Your task to perform on an android device: choose inbox layout in the gmail app Image 0: 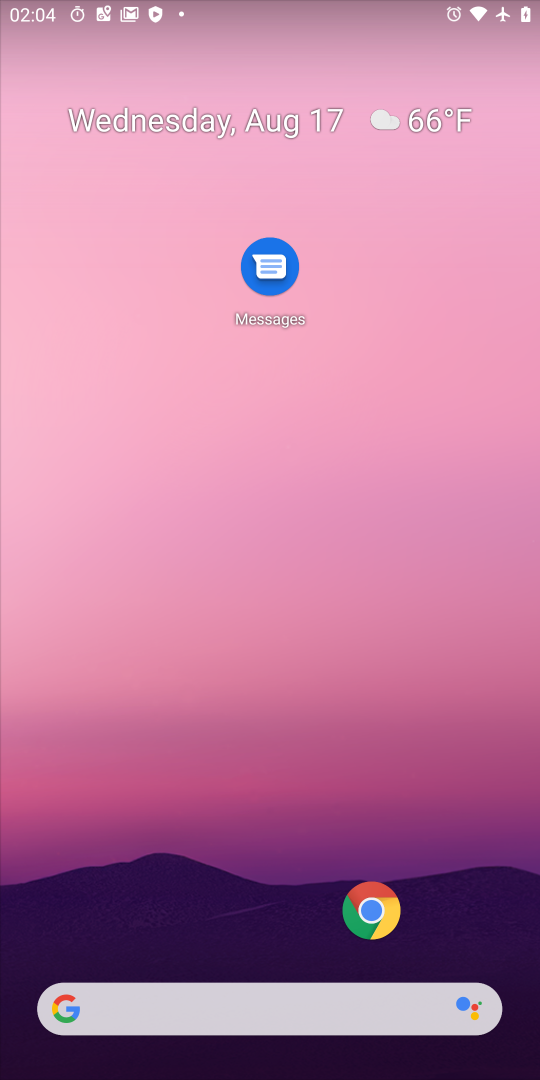
Step 0: drag from (216, 918) to (185, 8)
Your task to perform on an android device: choose inbox layout in the gmail app Image 1: 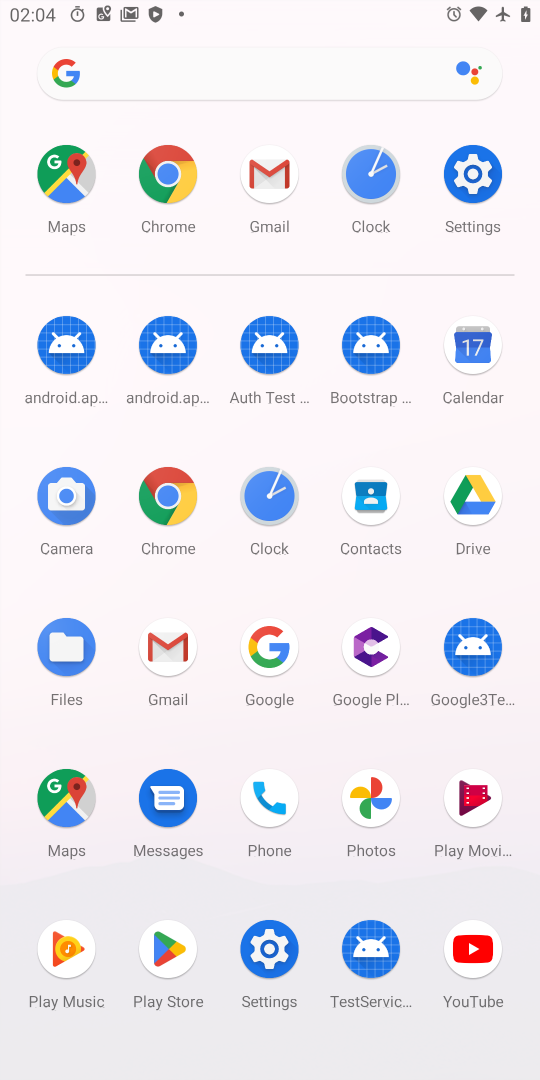
Step 1: click (168, 651)
Your task to perform on an android device: choose inbox layout in the gmail app Image 2: 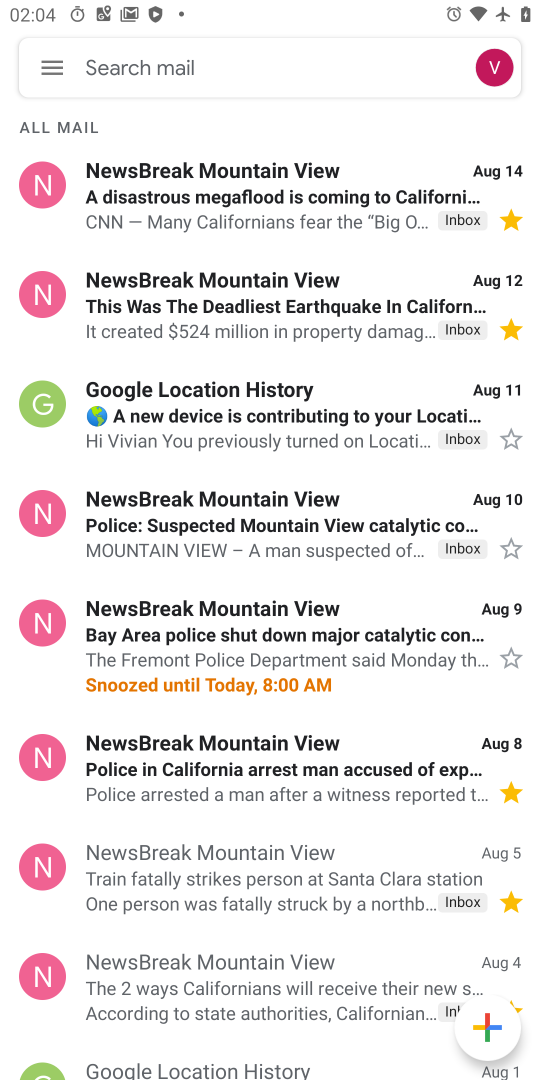
Step 2: click (51, 56)
Your task to perform on an android device: choose inbox layout in the gmail app Image 3: 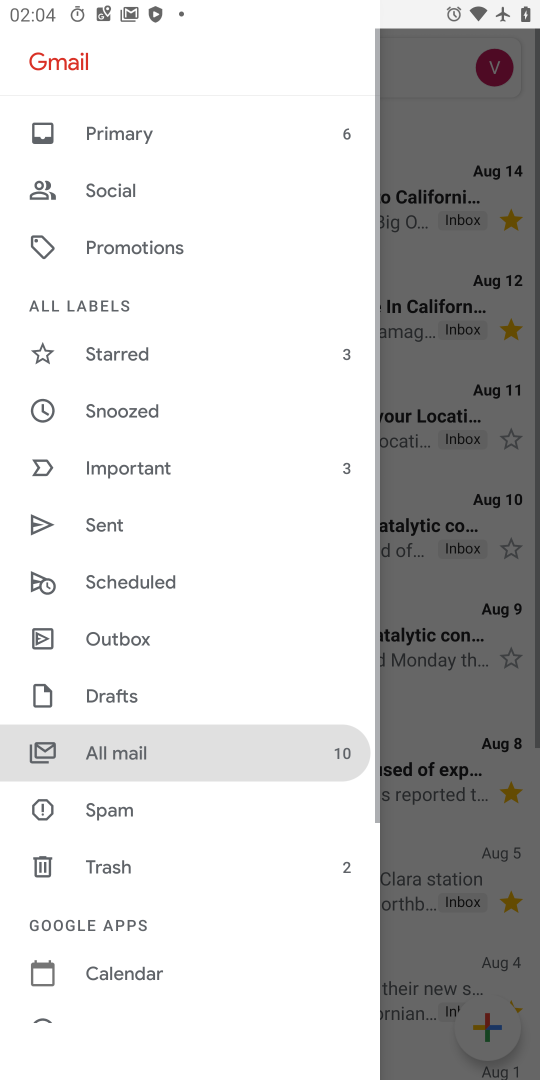
Step 3: drag from (197, 958) to (270, 195)
Your task to perform on an android device: choose inbox layout in the gmail app Image 4: 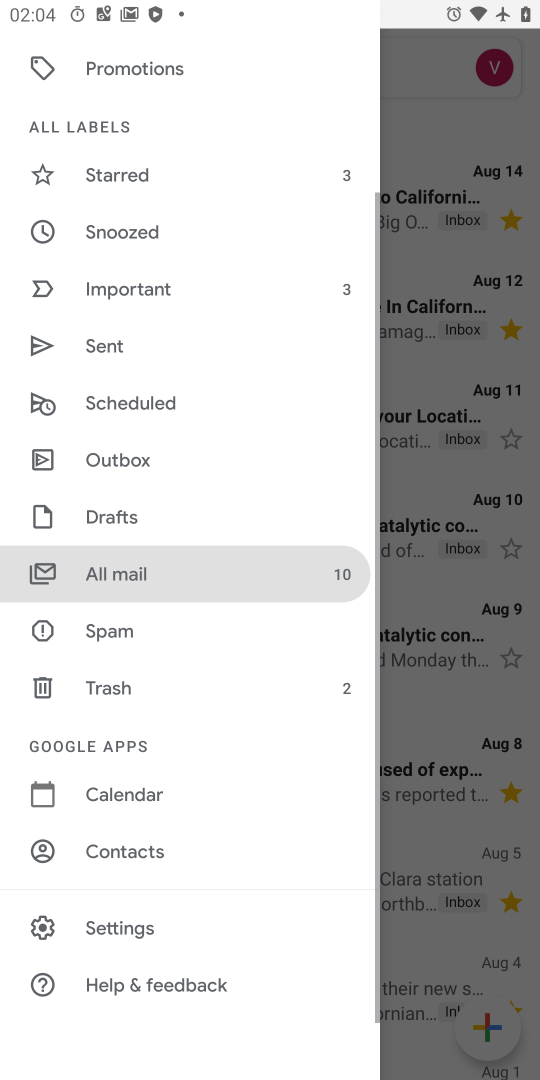
Step 4: click (114, 938)
Your task to perform on an android device: choose inbox layout in the gmail app Image 5: 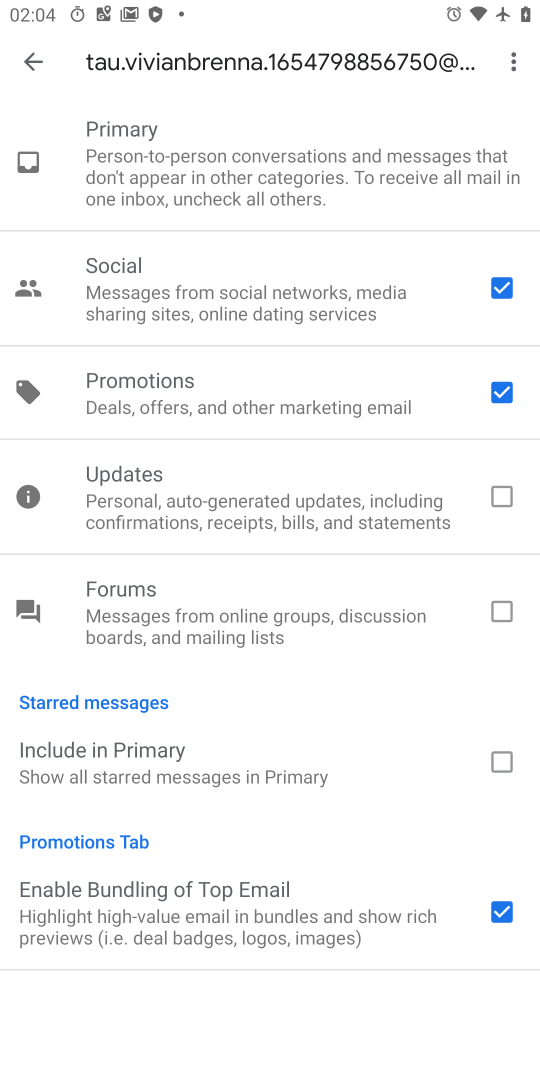
Step 5: drag from (283, 231) to (329, 939)
Your task to perform on an android device: choose inbox layout in the gmail app Image 6: 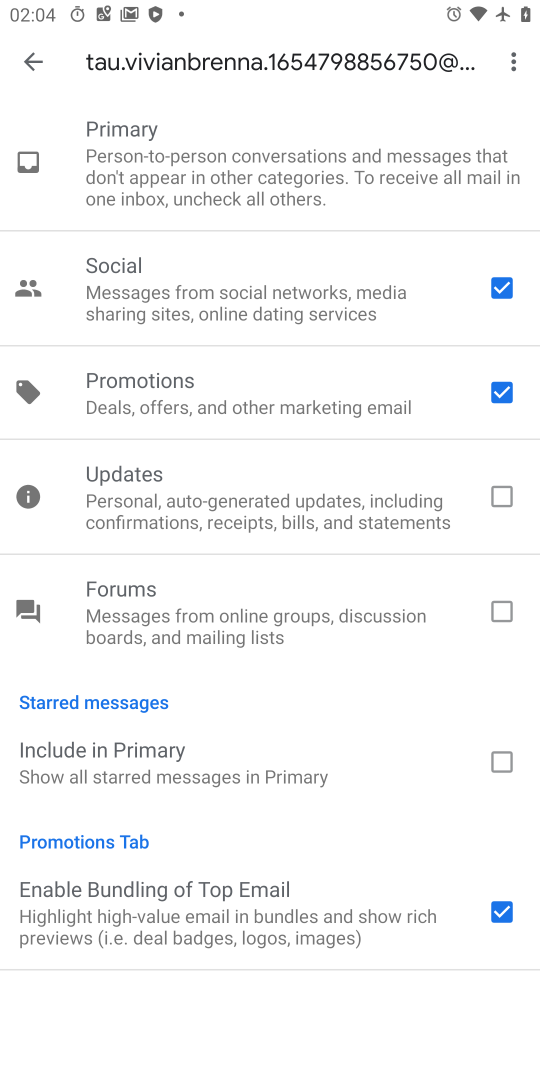
Step 6: click (25, 64)
Your task to perform on an android device: choose inbox layout in the gmail app Image 7: 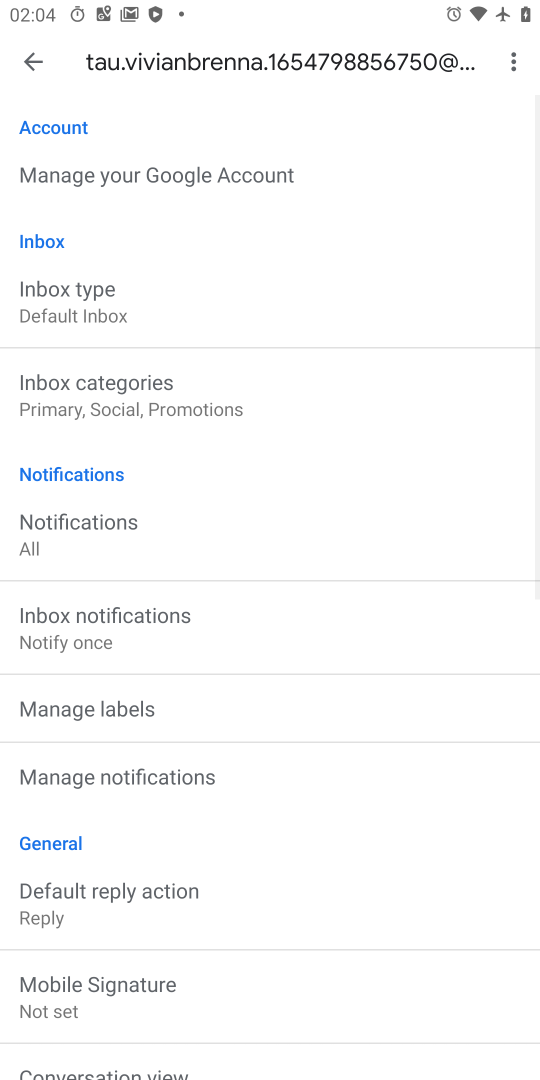
Step 7: click (98, 289)
Your task to perform on an android device: choose inbox layout in the gmail app Image 8: 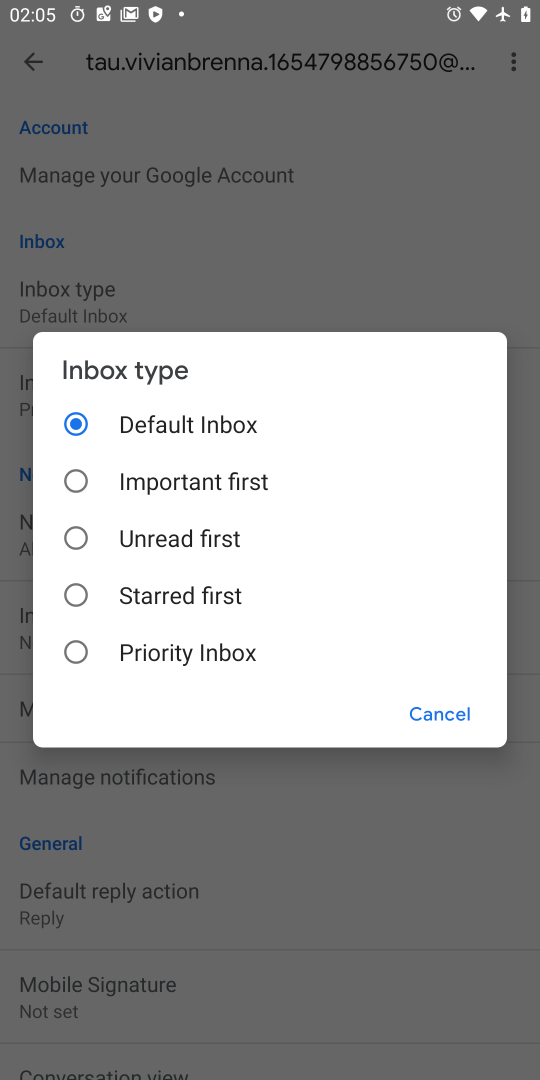
Step 8: task complete